Your task to perform on an android device: Open Maps and search for coffee Image 0: 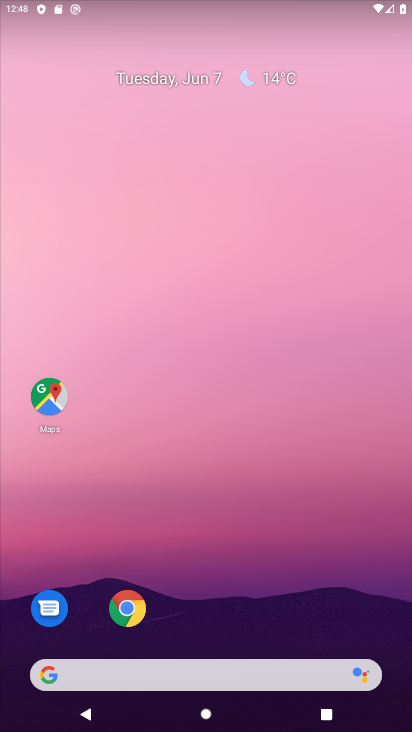
Step 0: drag from (191, 557) to (211, 60)
Your task to perform on an android device: Open Maps and search for coffee Image 1: 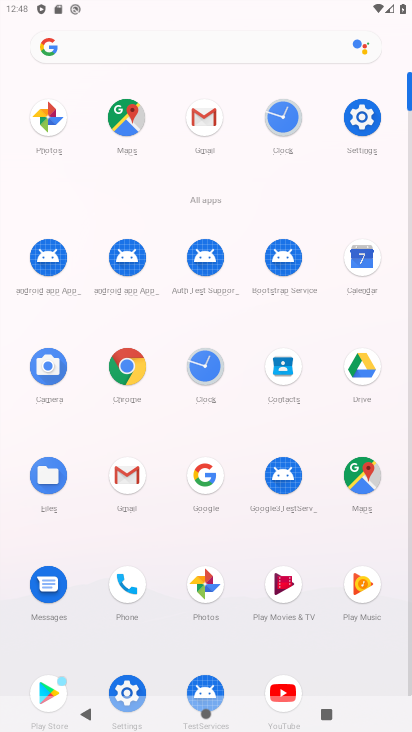
Step 1: click (367, 477)
Your task to perform on an android device: Open Maps and search for coffee Image 2: 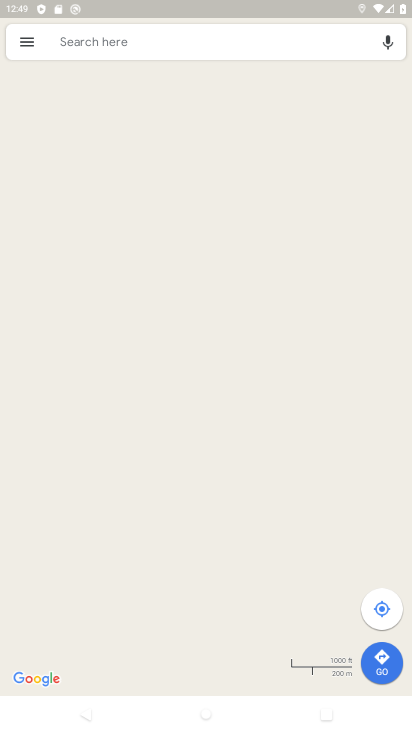
Step 2: click (166, 38)
Your task to perform on an android device: Open Maps and search for coffee Image 3: 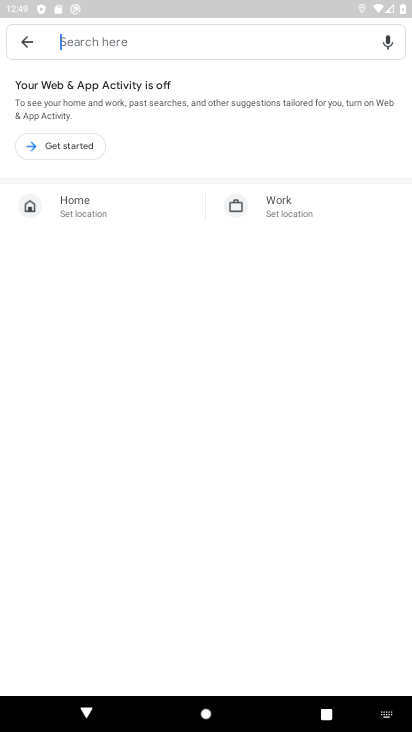
Step 3: type "coffee"
Your task to perform on an android device: Open Maps and search for coffee Image 4: 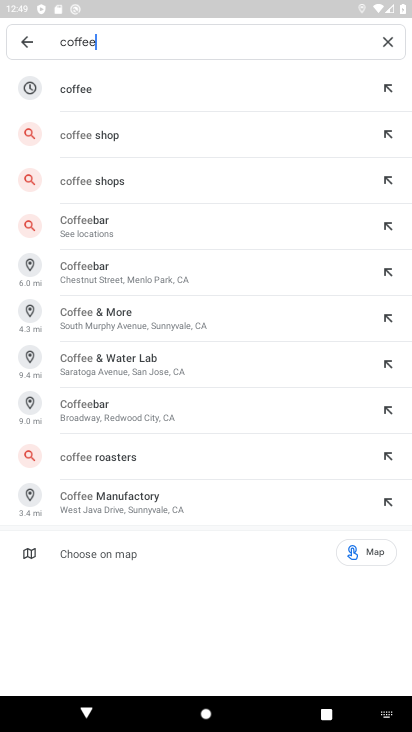
Step 4: click (98, 80)
Your task to perform on an android device: Open Maps and search for coffee Image 5: 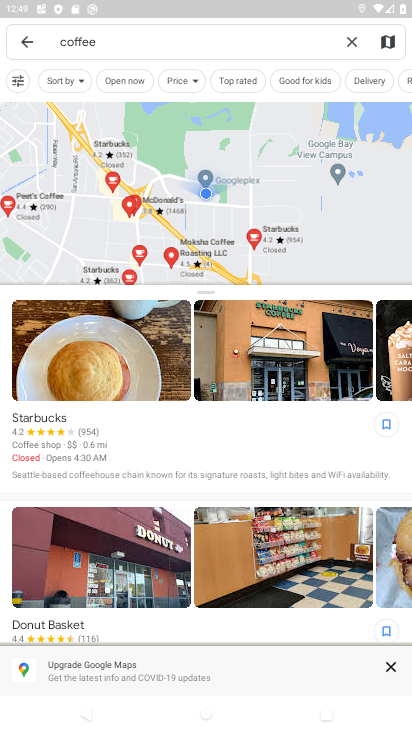
Step 5: task complete